Your task to perform on an android device: change keyboard looks Image 0: 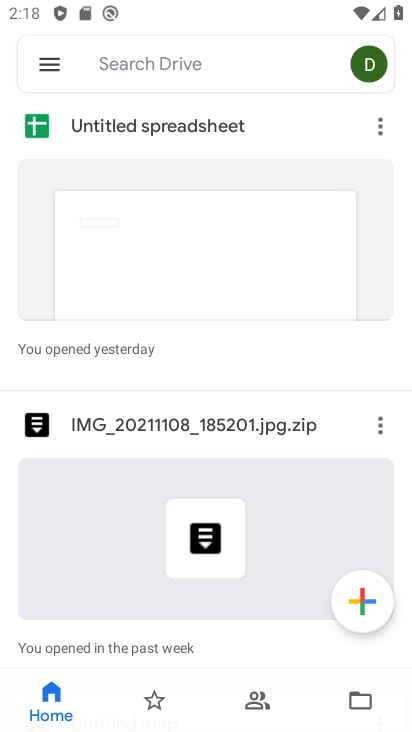
Step 0: press home button
Your task to perform on an android device: change keyboard looks Image 1: 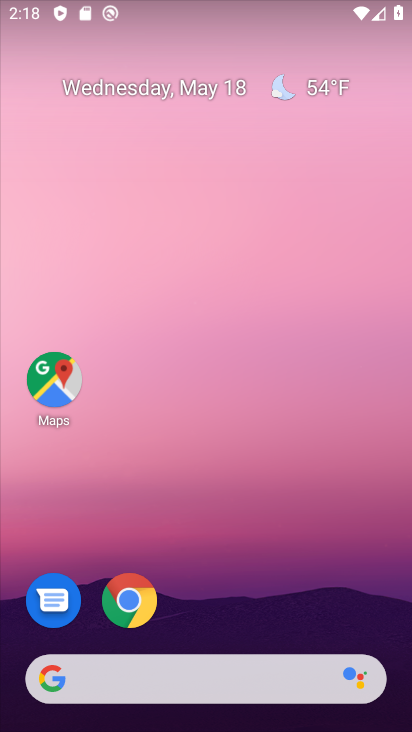
Step 1: drag from (184, 654) to (336, 150)
Your task to perform on an android device: change keyboard looks Image 2: 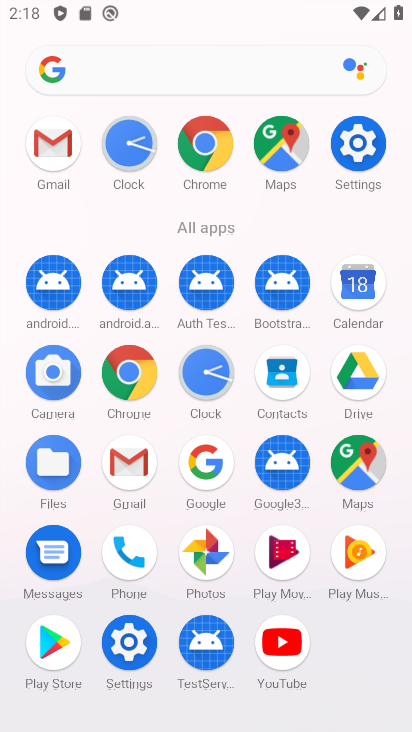
Step 2: click (357, 153)
Your task to perform on an android device: change keyboard looks Image 3: 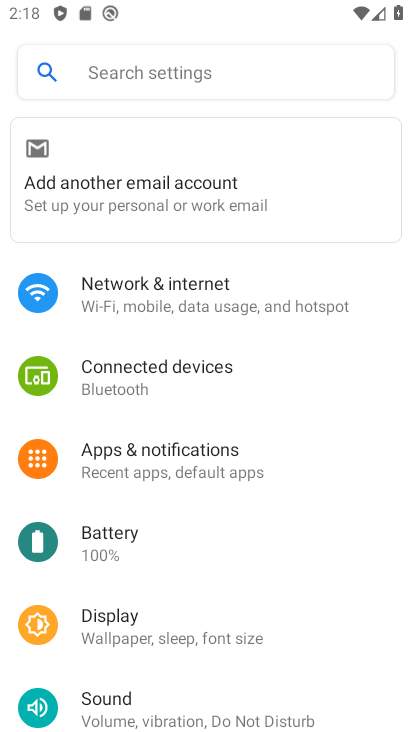
Step 3: drag from (208, 613) to (386, 179)
Your task to perform on an android device: change keyboard looks Image 4: 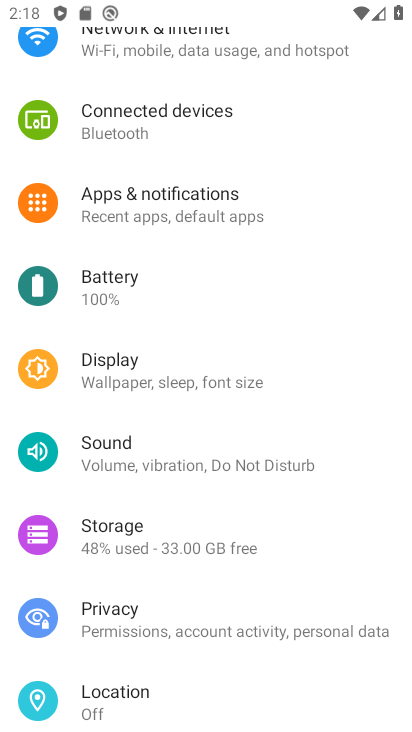
Step 4: drag from (188, 595) to (312, 201)
Your task to perform on an android device: change keyboard looks Image 5: 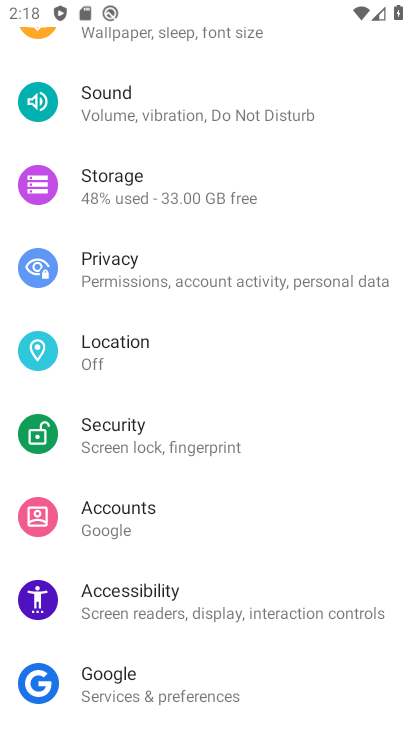
Step 5: drag from (211, 651) to (306, 269)
Your task to perform on an android device: change keyboard looks Image 6: 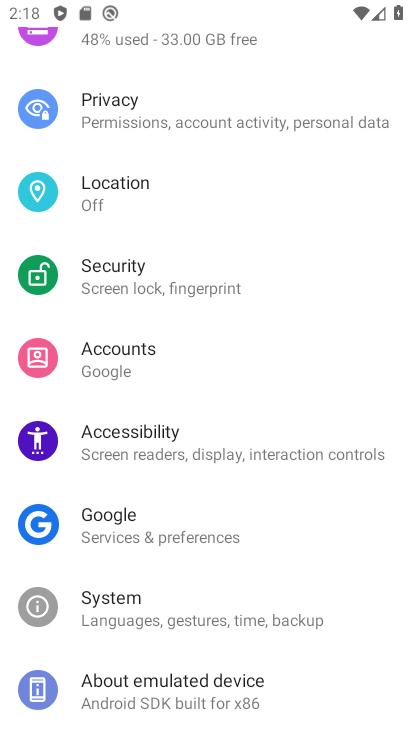
Step 6: click (138, 617)
Your task to perform on an android device: change keyboard looks Image 7: 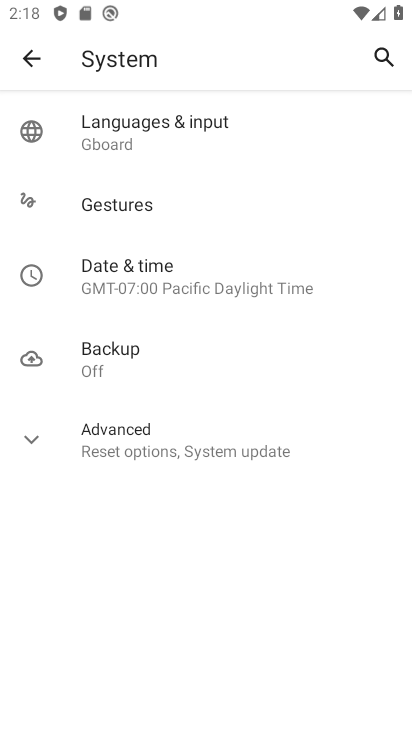
Step 7: click (139, 130)
Your task to perform on an android device: change keyboard looks Image 8: 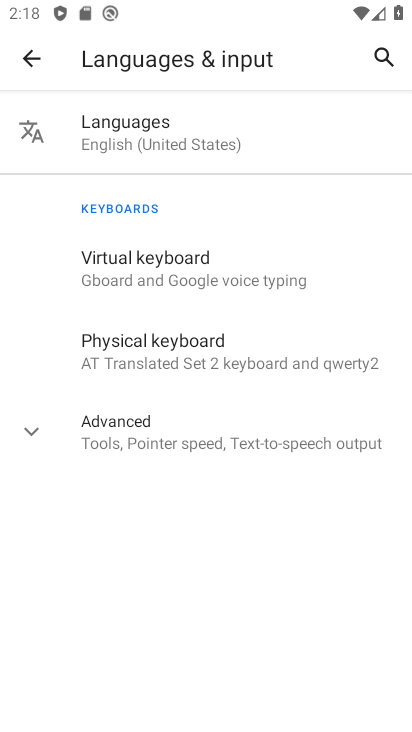
Step 8: click (160, 269)
Your task to perform on an android device: change keyboard looks Image 9: 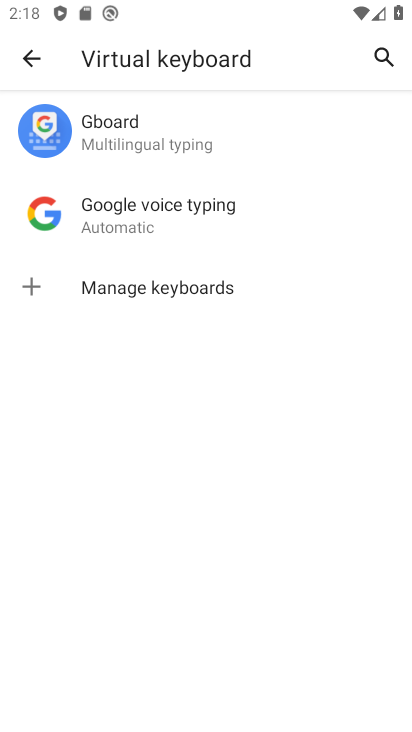
Step 9: click (134, 107)
Your task to perform on an android device: change keyboard looks Image 10: 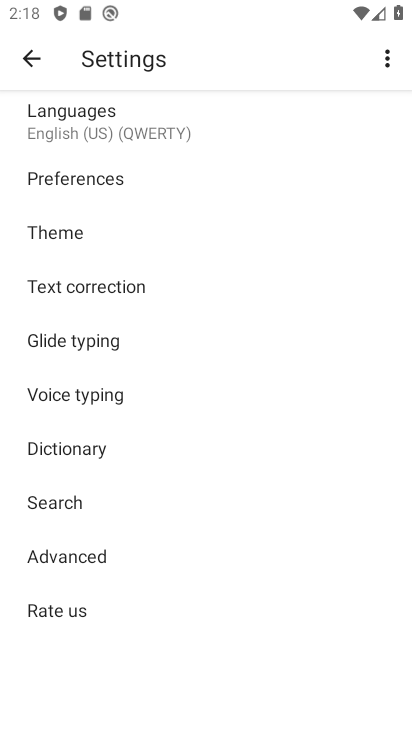
Step 10: click (66, 242)
Your task to perform on an android device: change keyboard looks Image 11: 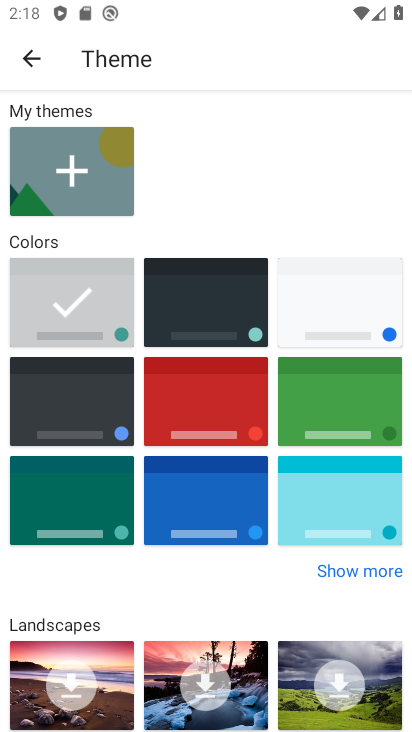
Step 11: click (226, 409)
Your task to perform on an android device: change keyboard looks Image 12: 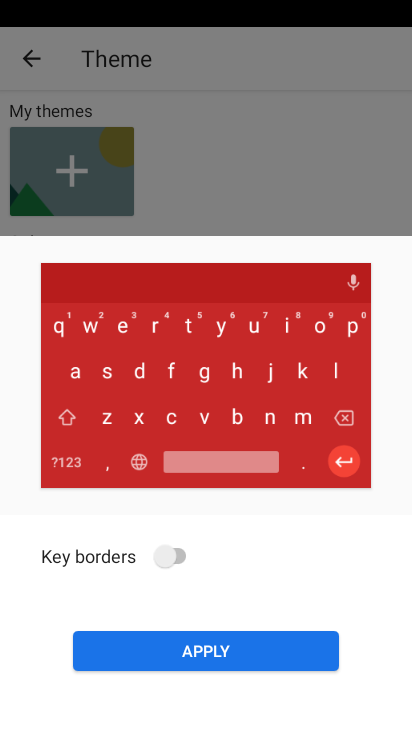
Step 12: click (199, 649)
Your task to perform on an android device: change keyboard looks Image 13: 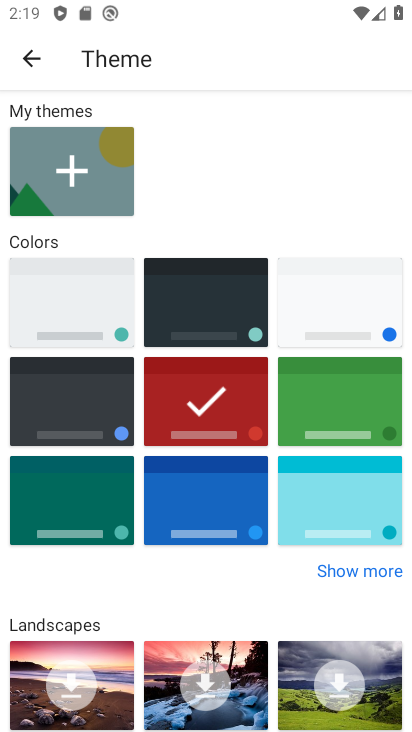
Step 13: task complete